Your task to perform on an android device: Open CNN.com Image 0: 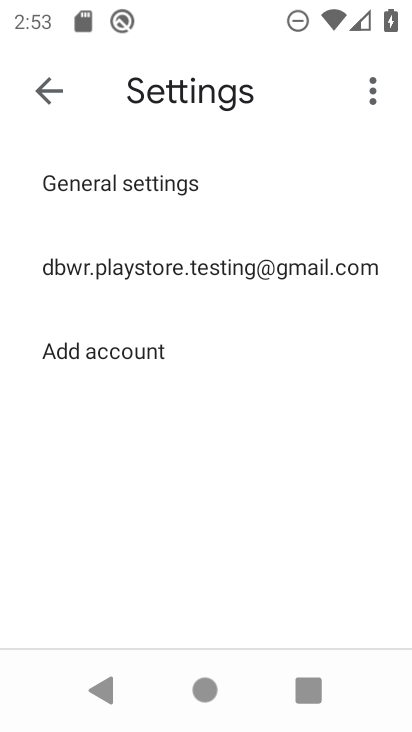
Step 0: press home button
Your task to perform on an android device: Open CNN.com Image 1: 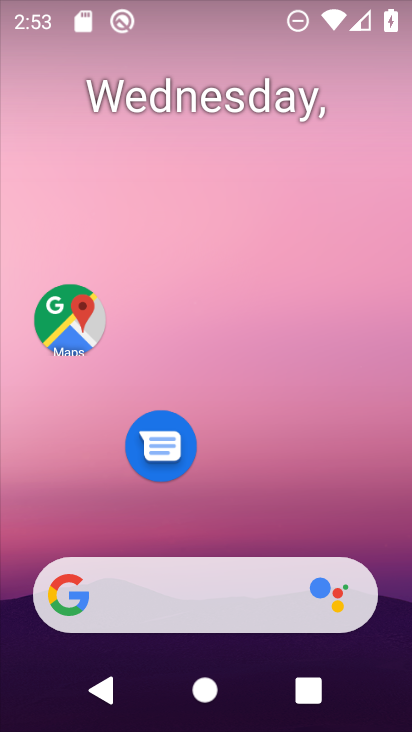
Step 1: drag from (290, 467) to (281, 10)
Your task to perform on an android device: Open CNN.com Image 2: 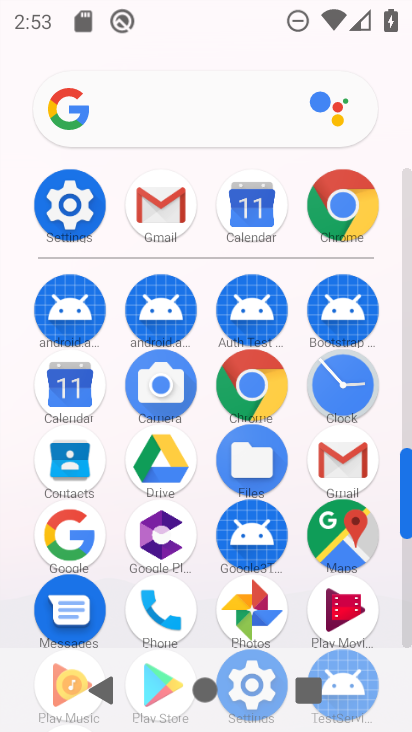
Step 2: click (197, 80)
Your task to perform on an android device: Open CNN.com Image 3: 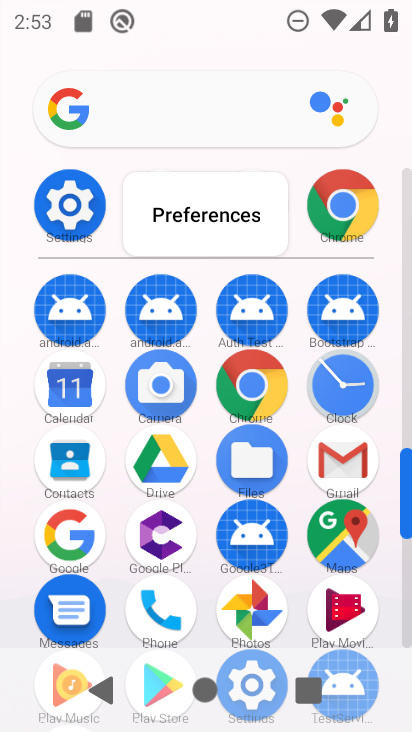
Step 3: click (132, 288)
Your task to perform on an android device: Open CNN.com Image 4: 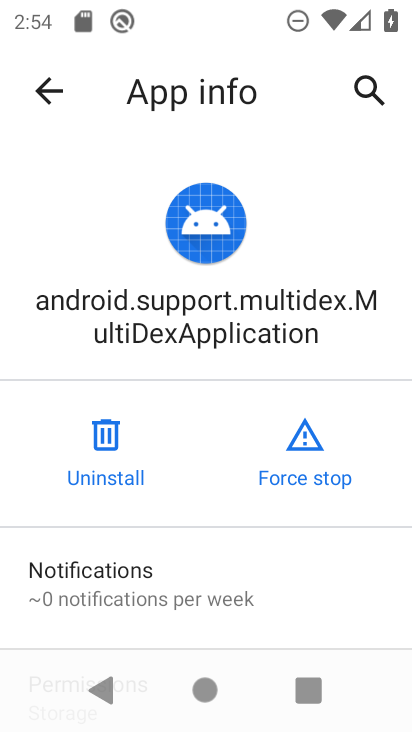
Step 4: click (46, 70)
Your task to perform on an android device: Open CNN.com Image 5: 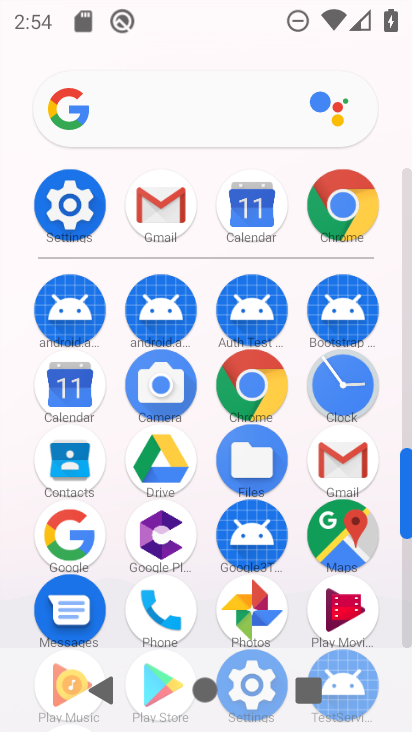
Step 5: click (336, 226)
Your task to perform on an android device: Open CNN.com Image 6: 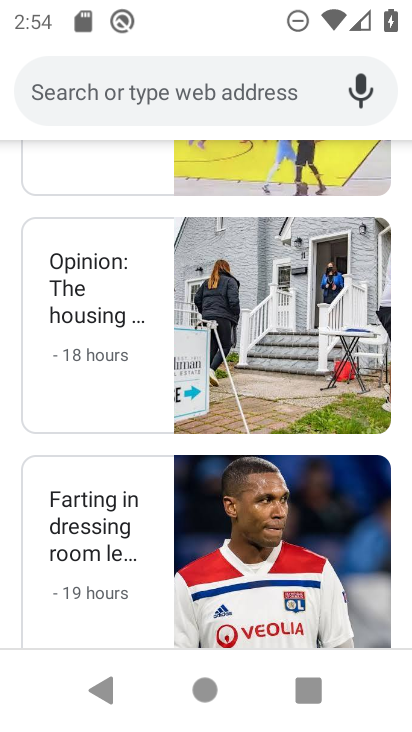
Step 6: click (262, 115)
Your task to perform on an android device: Open CNN.com Image 7: 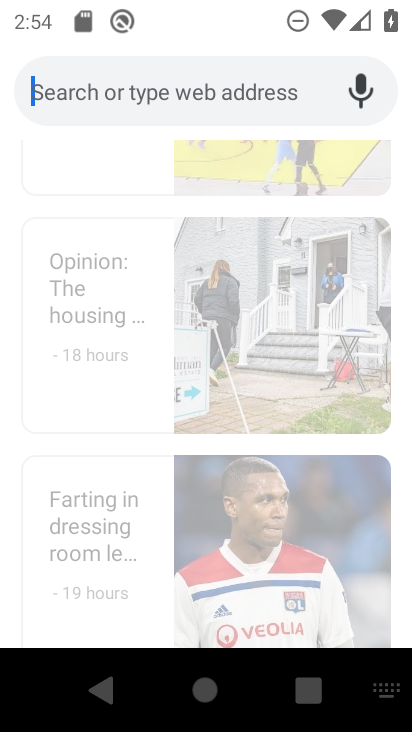
Step 7: type "cnn.com"
Your task to perform on an android device: Open CNN.com Image 8: 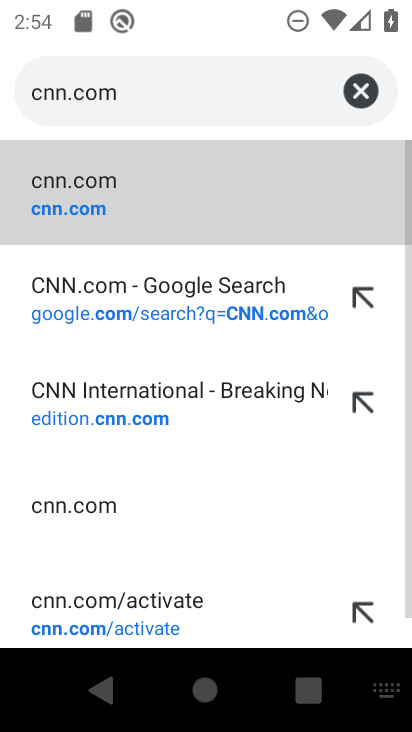
Step 8: click (238, 312)
Your task to perform on an android device: Open CNN.com Image 9: 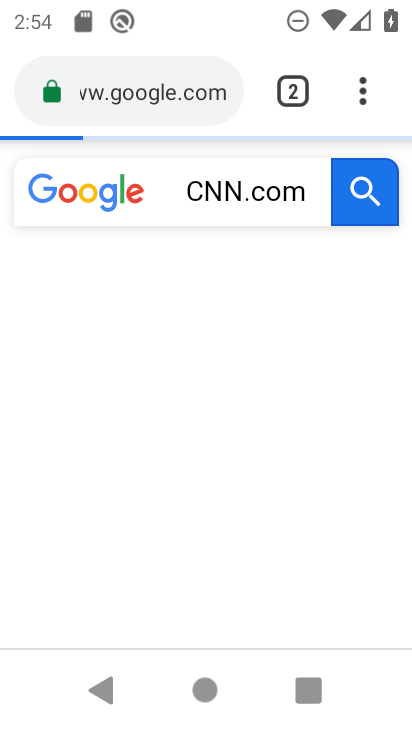
Step 9: task complete